Your task to perform on an android device: What's the weather? Image 0: 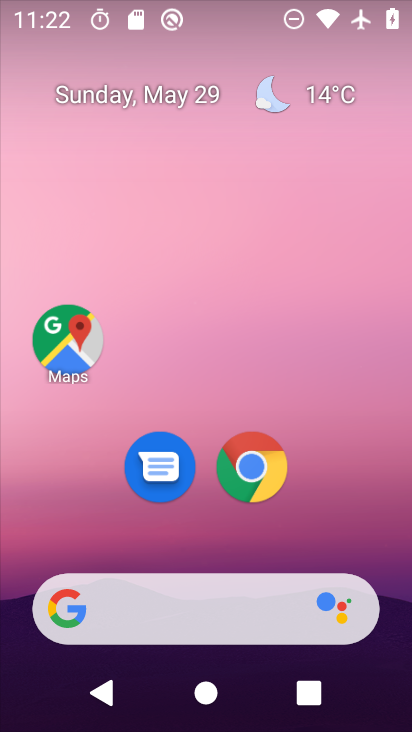
Step 0: drag from (190, 542) to (168, 203)
Your task to perform on an android device: What's the weather? Image 1: 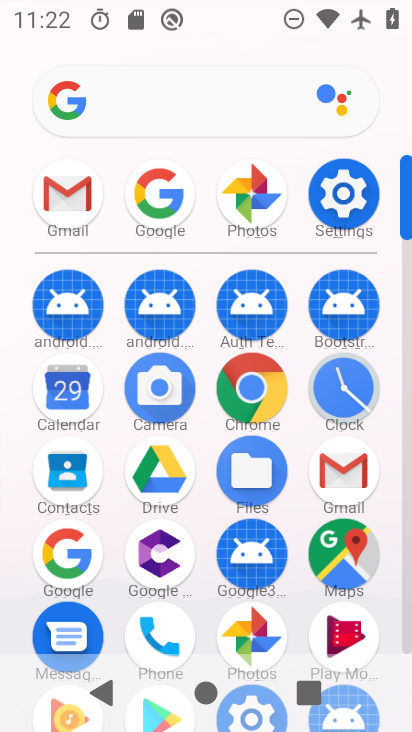
Step 1: click (160, 211)
Your task to perform on an android device: What's the weather? Image 2: 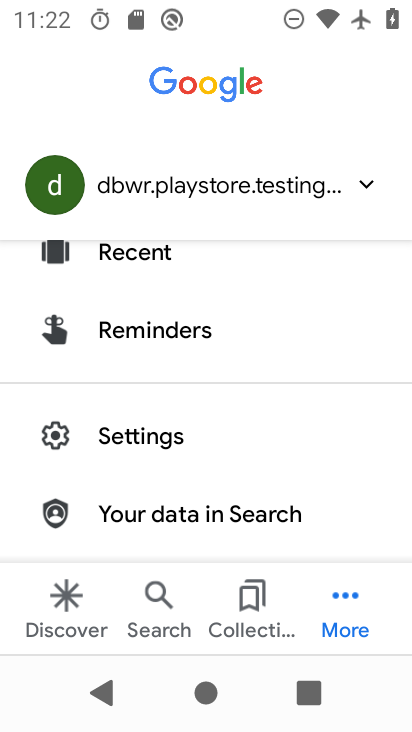
Step 2: press back button
Your task to perform on an android device: What's the weather? Image 3: 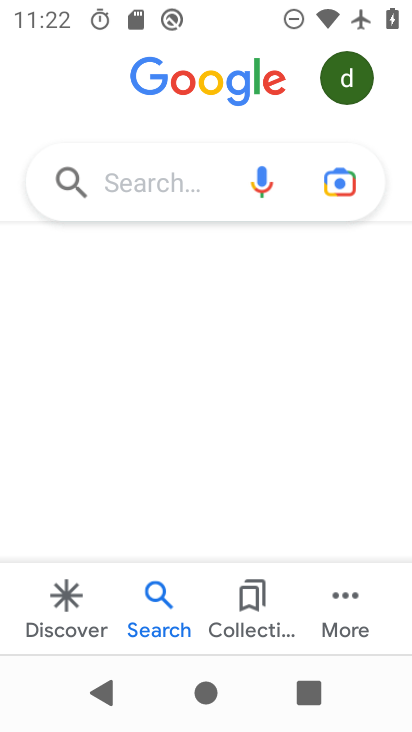
Step 3: click (140, 197)
Your task to perform on an android device: What's the weather? Image 4: 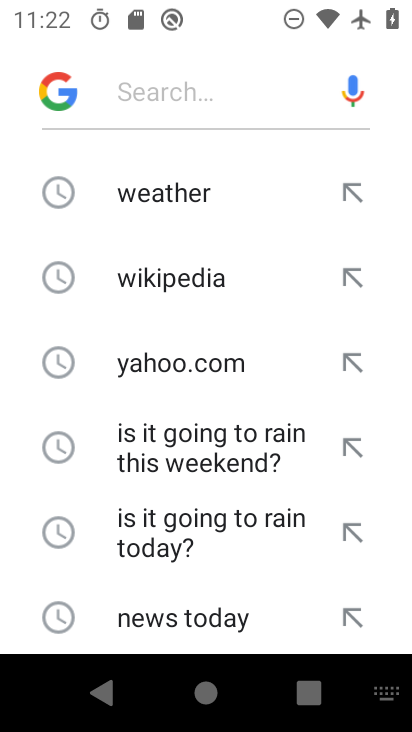
Step 4: click (162, 203)
Your task to perform on an android device: What's the weather? Image 5: 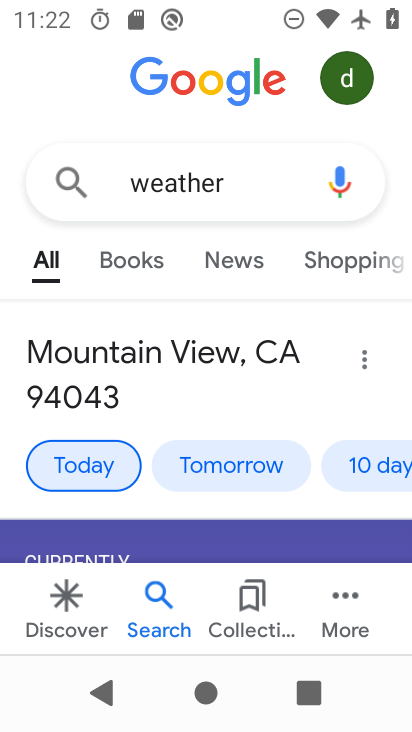
Step 5: task complete